Your task to perform on an android device: open wifi settings Image 0: 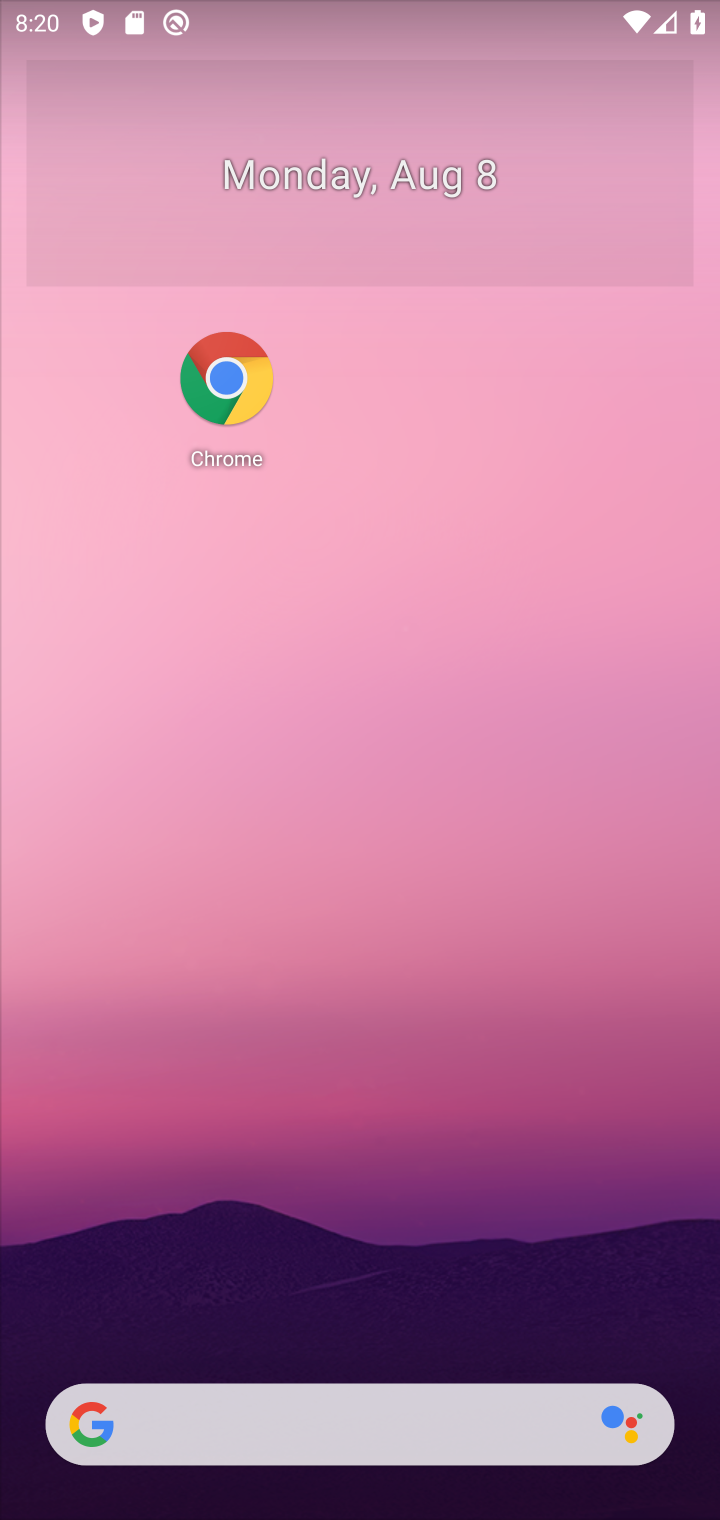
Step 0: drag from (479, 819) to (600, 22)
Your task to perform on an android device: open wifi settings Image 1: 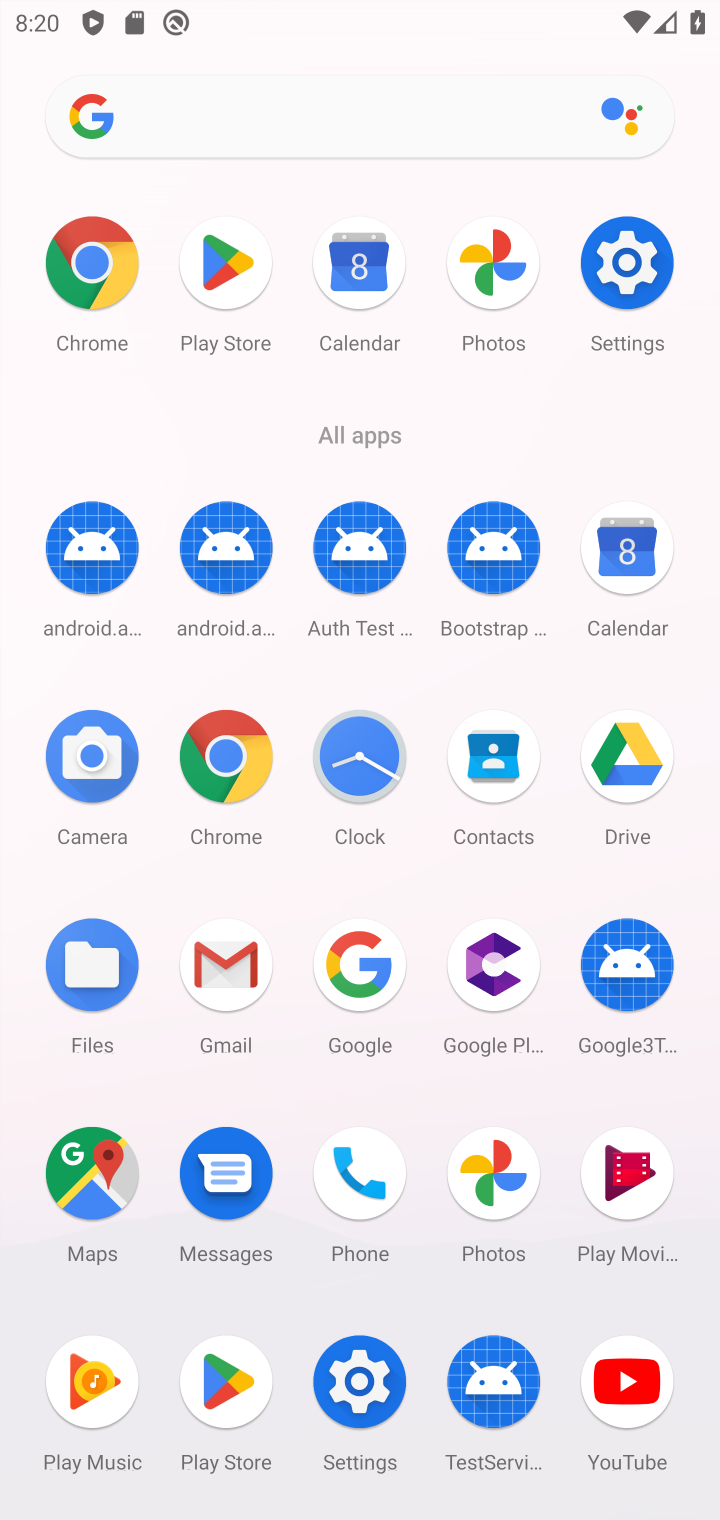
Step 1: click (622, 275)
Your task to perform on an android device: open wifi settings Image 2: 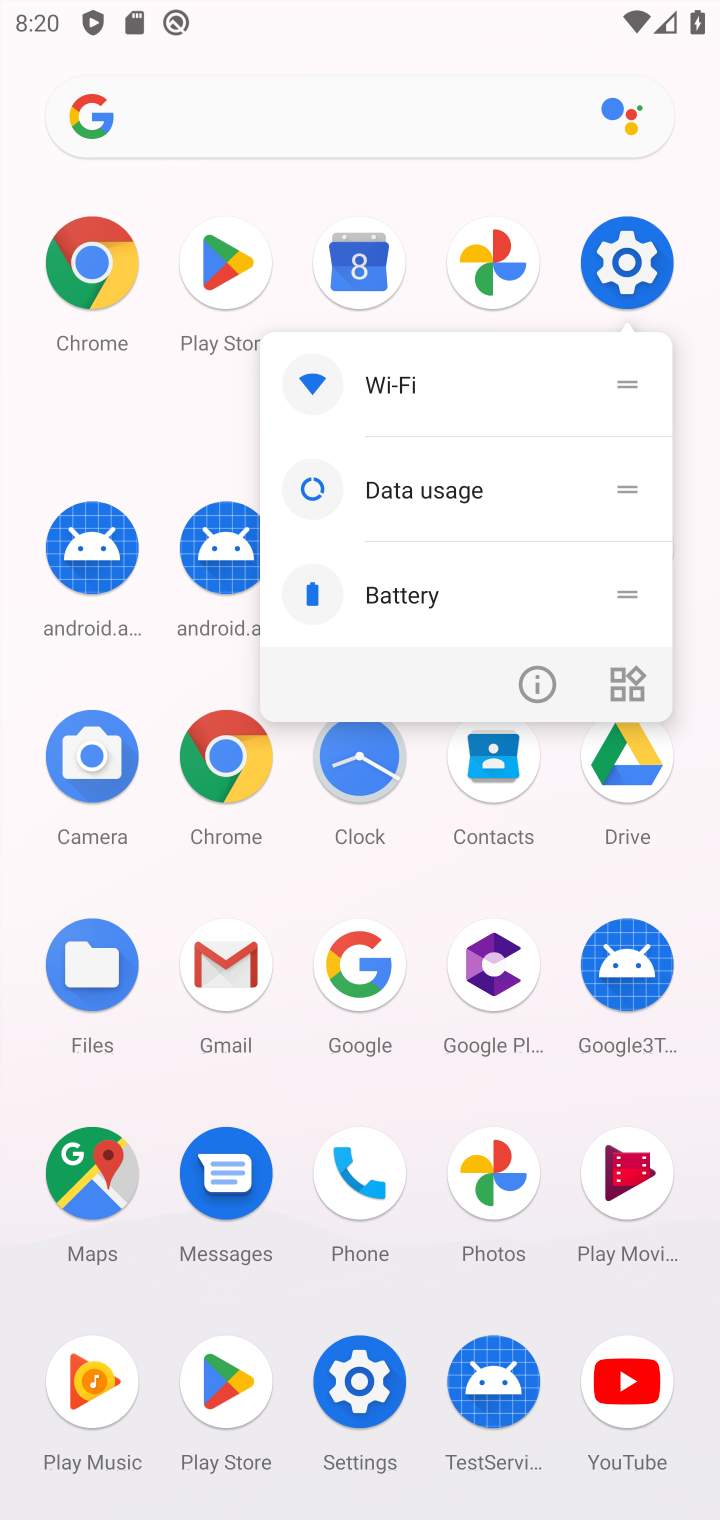
Step 2: click (624, 270)
Your task to perform on an android device: open wifi settings Image 3: 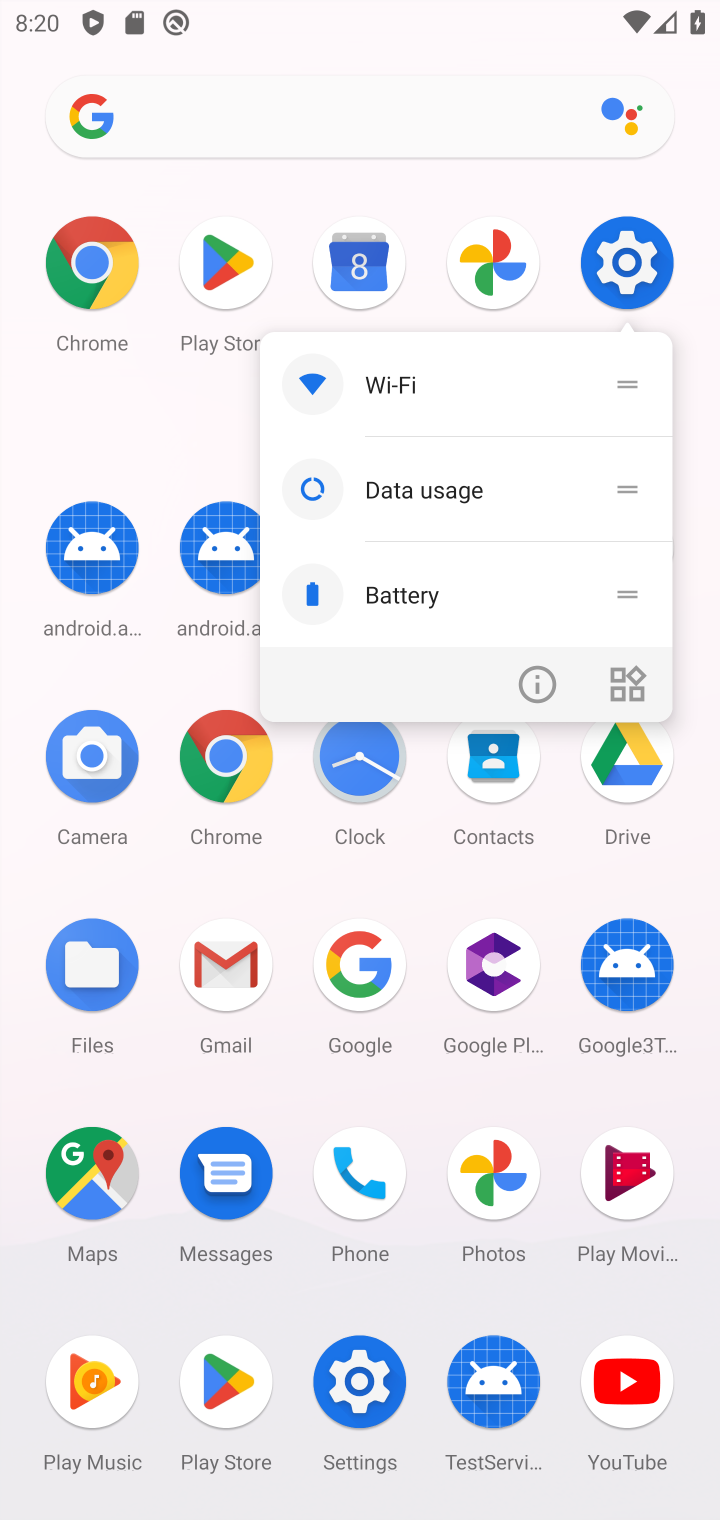
Step 3: click (635, 241)
Your task to perform on an android device: open wifi settings Image 4: 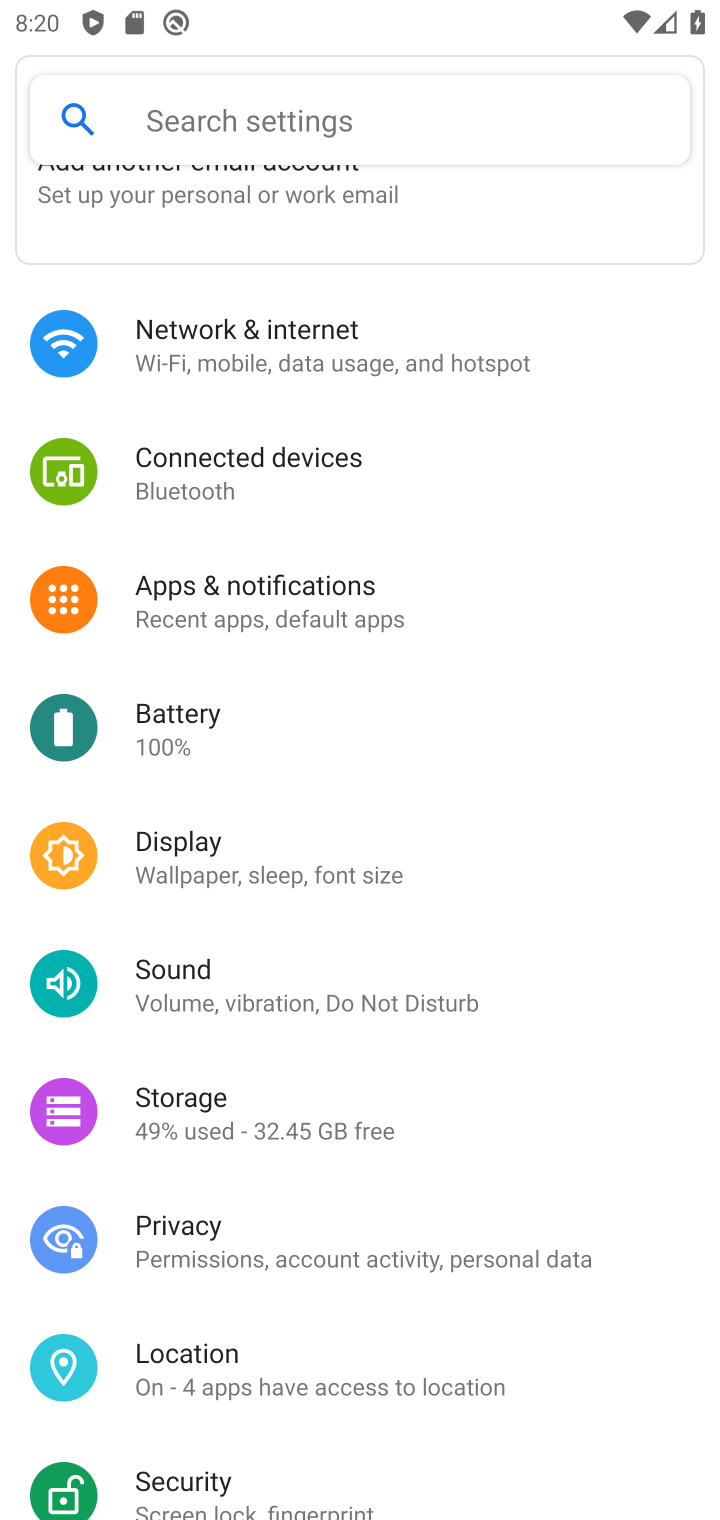
Step 4: drag from (427, 355) to (423, 1309)
Your task to perform on an android device: open wifi settings Image 5: 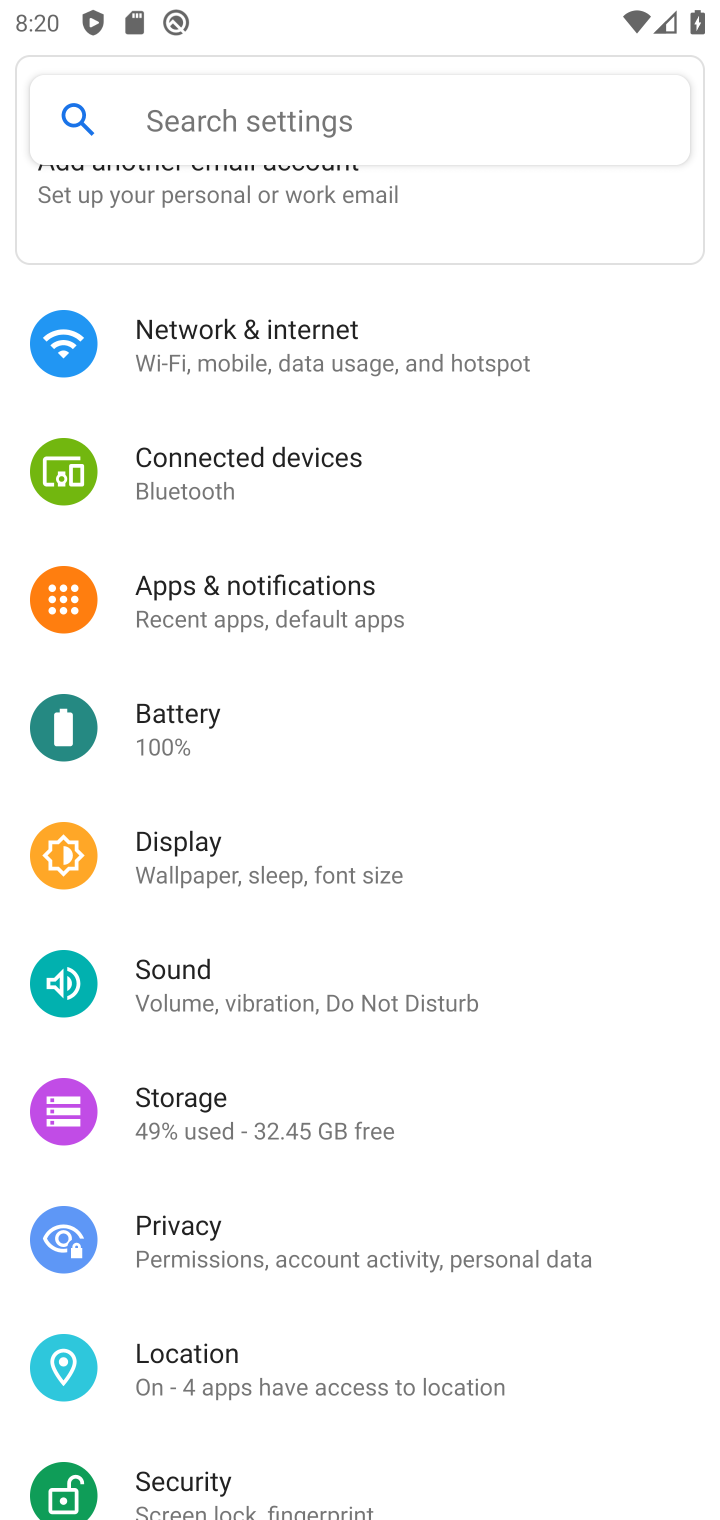
Step 5: click (228, 357)
Your task to perform on an android device: open wifi settings Image 6: 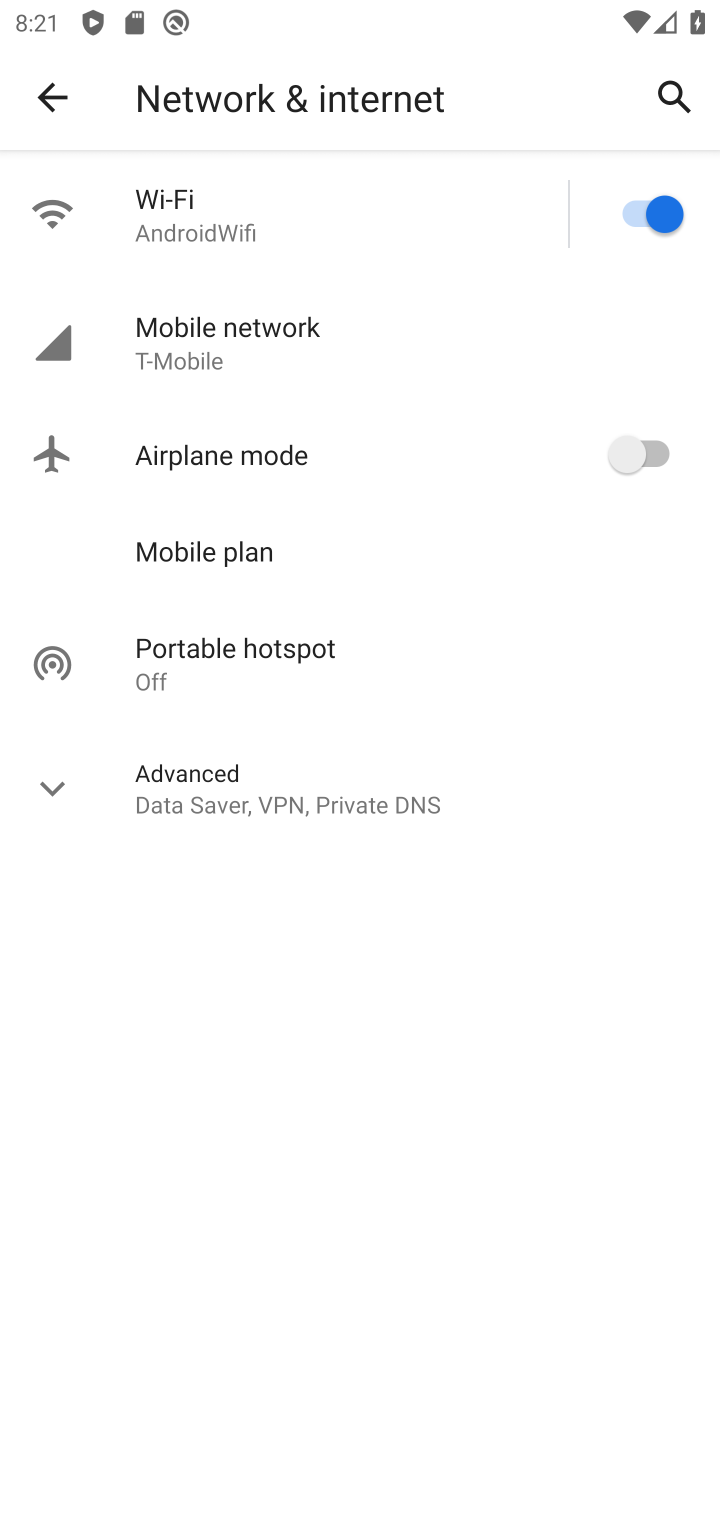
Step 6: click (166, 237)
Your task to perform on an android device: open wifi settings Image 7: 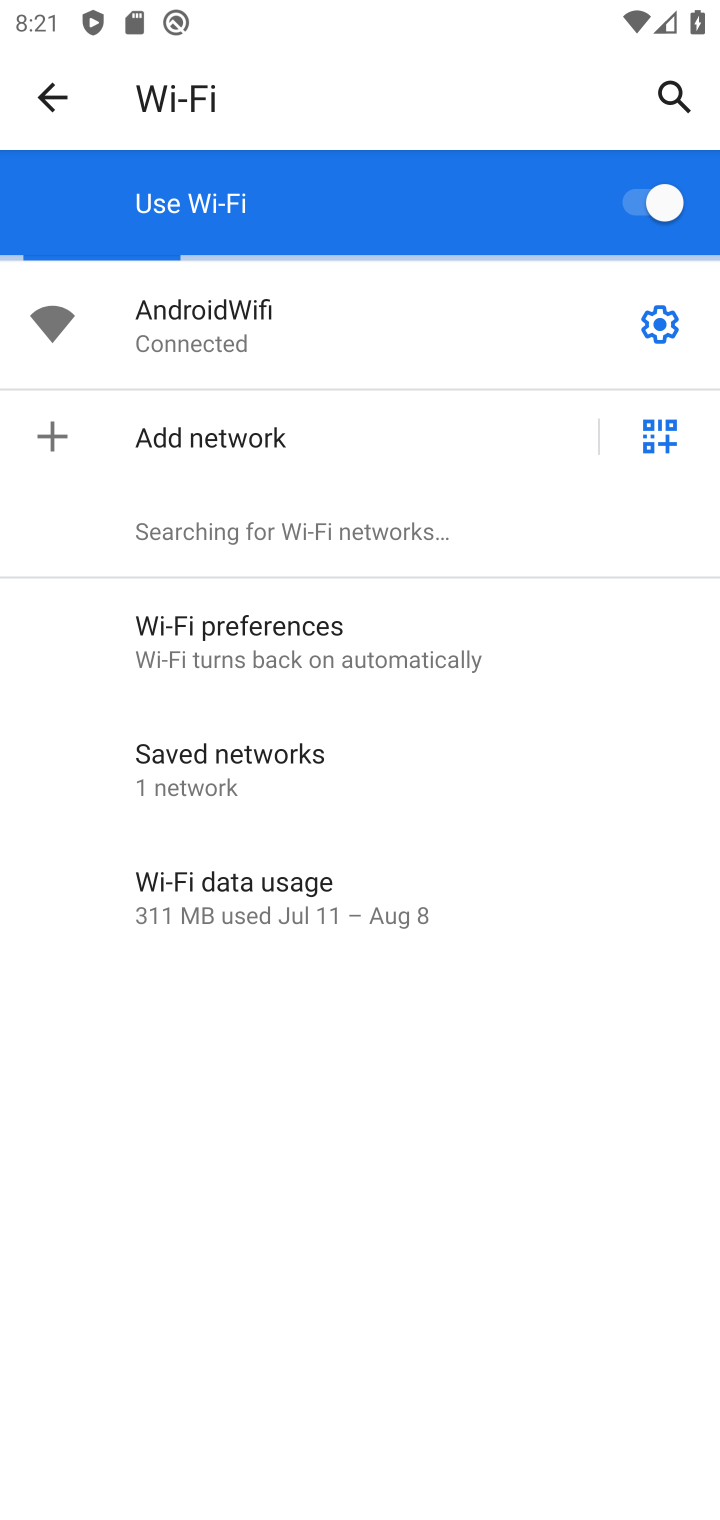
Step 7: task complete